Your task to perform on an android device: Open Yahoo.com Image 0: 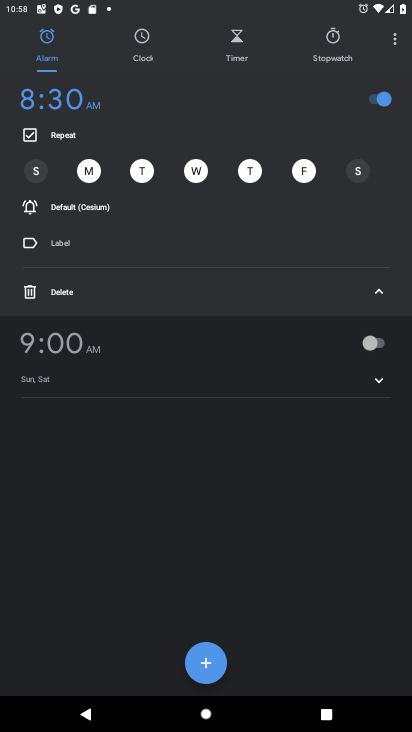
Step 0: press home button
Your task to perform on an android device: Open Yahoo.com Image 1: 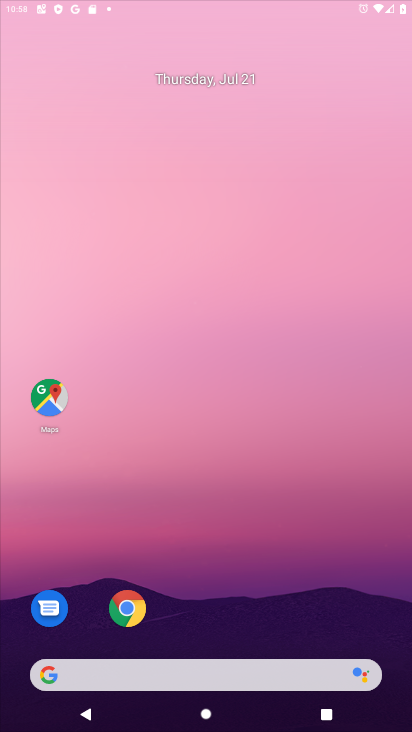
Step 1: drag from (378, 647) to (202, 1)
Your task to perform on an android device: Open Yahoo.com Image 2: 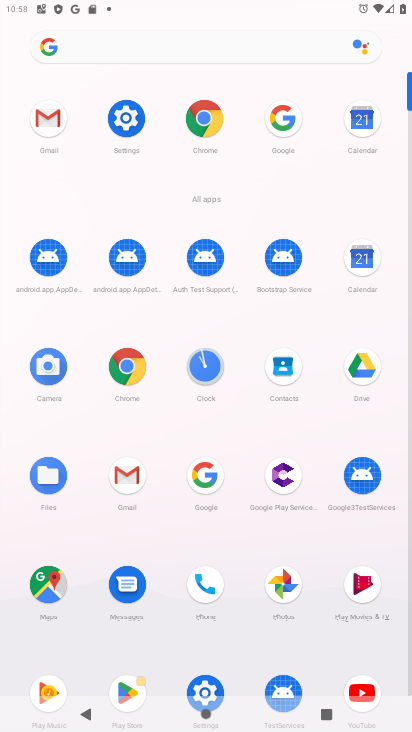
Step 2: click (206, 470)
Your task to perform on an android device: Open Yahoo.com Image 3: 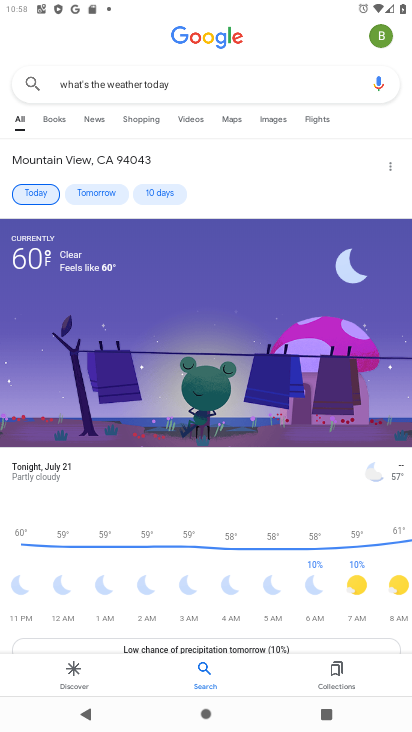
Step 3: press back button
Your task to perform on an android device: Open Yahoo.com Image 4: 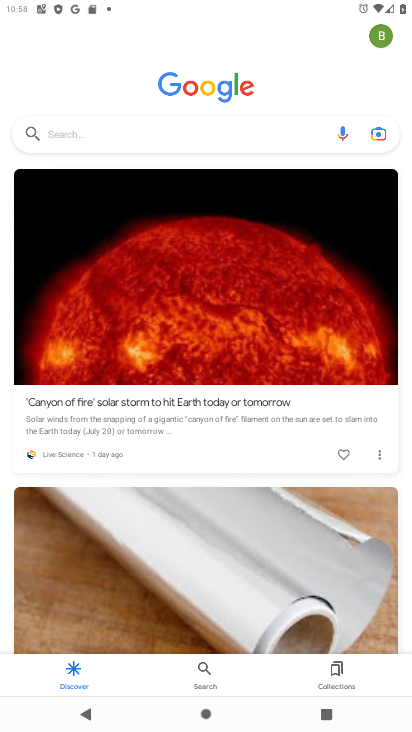
Step 4: click (208, 140)
Your task to perform on an android device: Open Yahoo.com Image 5: 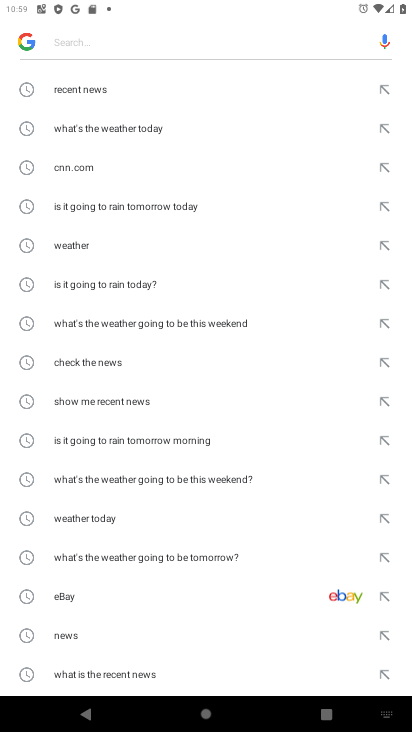
Step 5: type "Yahoo.com"
Your task to perform on an android device: Open Yahoo.com Image 6: 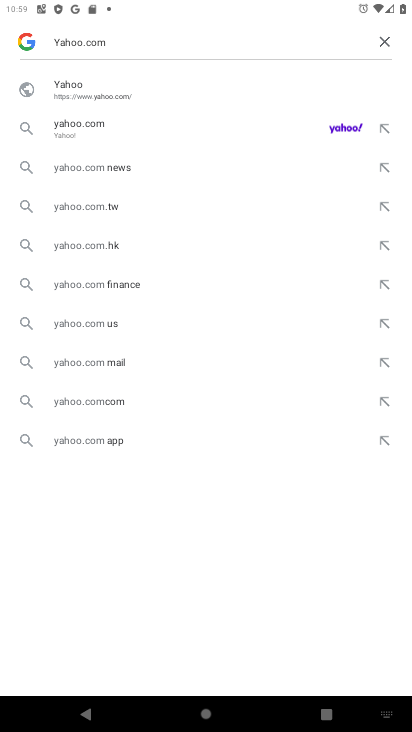
Step 6: click (117, 130)
Your task to perform on an android device: Open Yahoo.com Image 7: 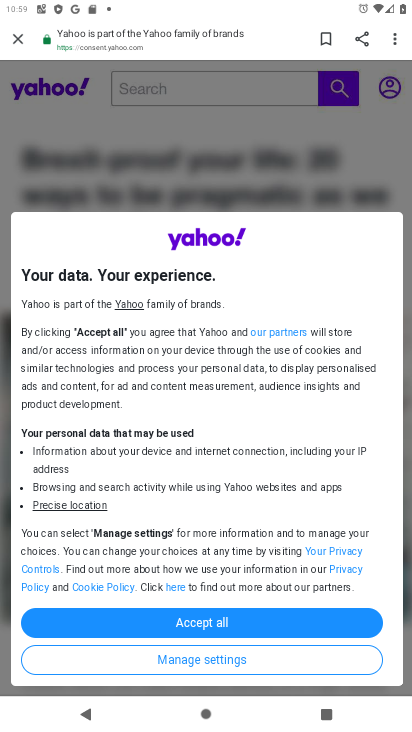
Step 7: task complete